Your task to perform on an android device: Go to settings Image 0: 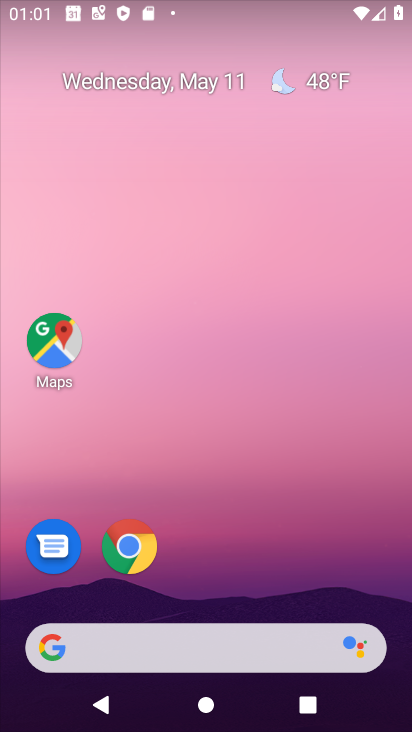
Step 0: drag from (198, 597) to (205, 288)
Your task to perform on an android device: Go to settings Image 1: 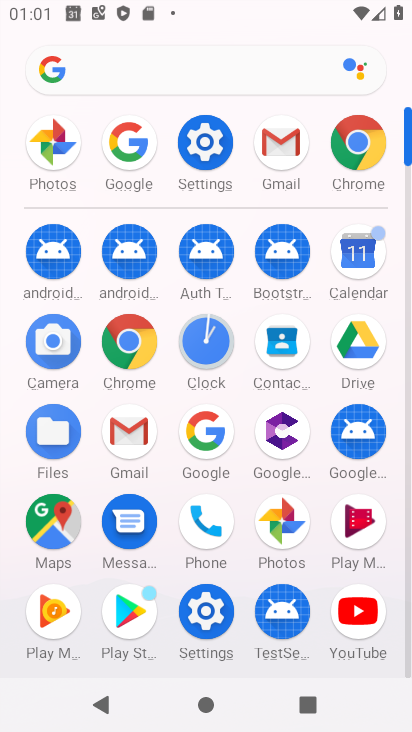
Step 1: click (223, 143)
Your task to perform on an android device: Go to settings Image 2: 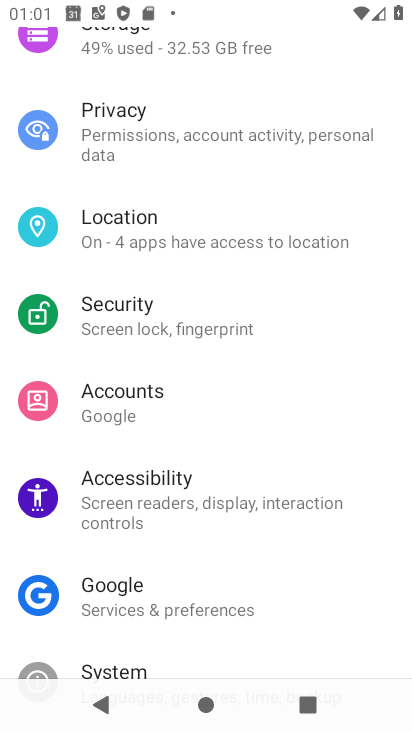
Step 2: task complete